Your task to perform on an android device: Turn on the flashlight Image 0: 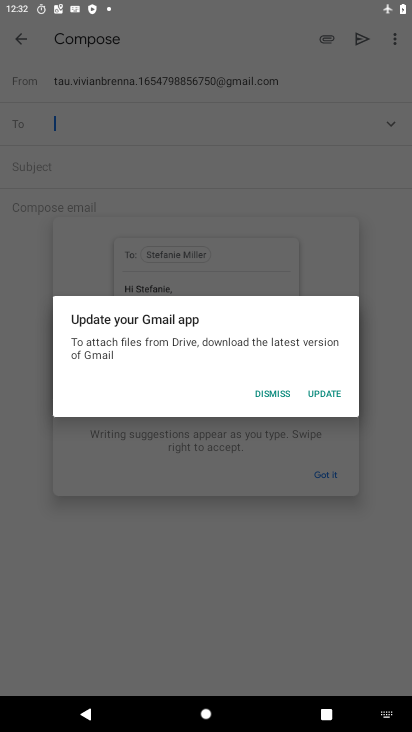
Step 0: drag from (263, 146) to (227, 444)
Your task to perform on an android device: Turn on the flashlight Image 1: 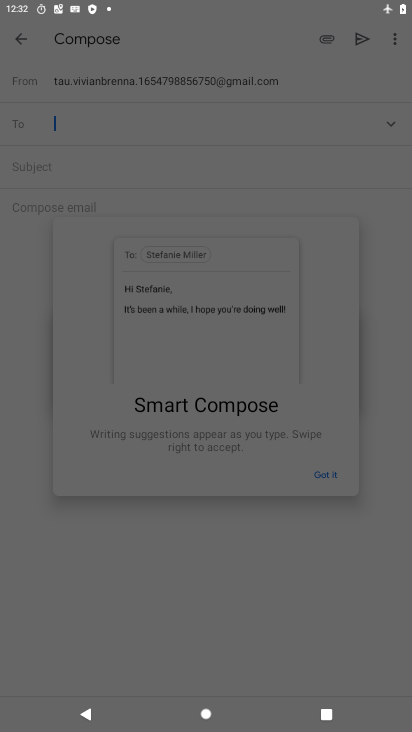
Step 1: task complete